Your task to perform on an android device: open app "eBay: The shopping marketplace" Image 0: 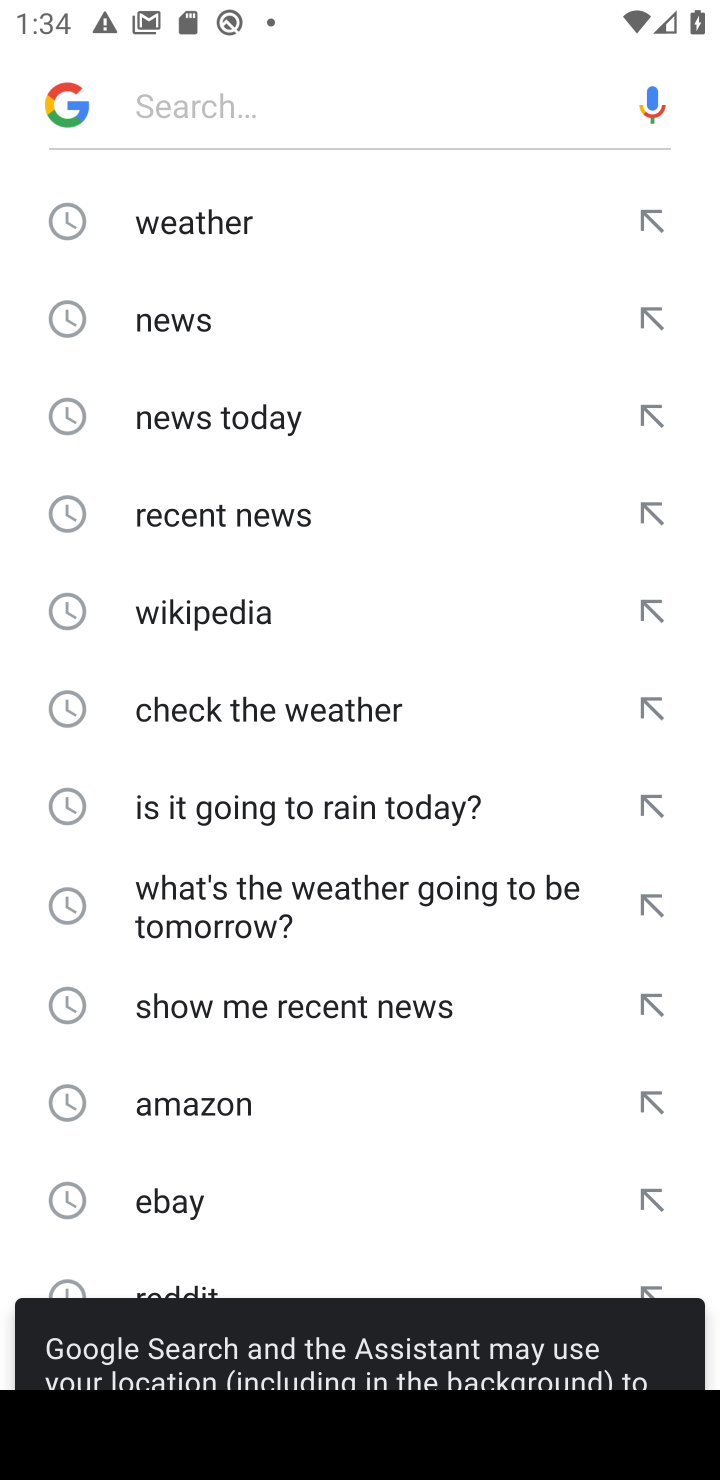
Step 0: press home button
Your task to perform on an android device: open app "eBay: The shopping marketplace" Image 1: 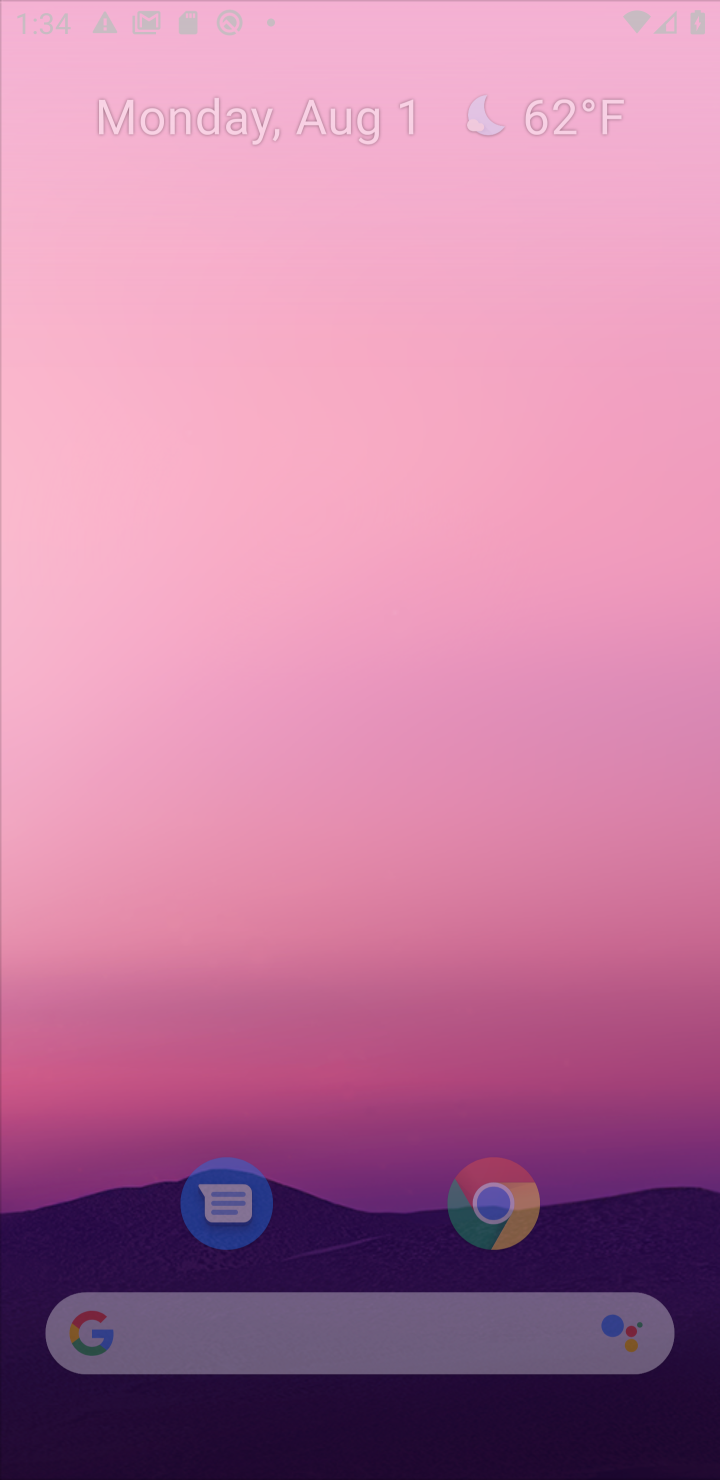
Step 1: press home button
Your task to perform on an android device: open app "eBay: The shopping marketplace" Image 2: 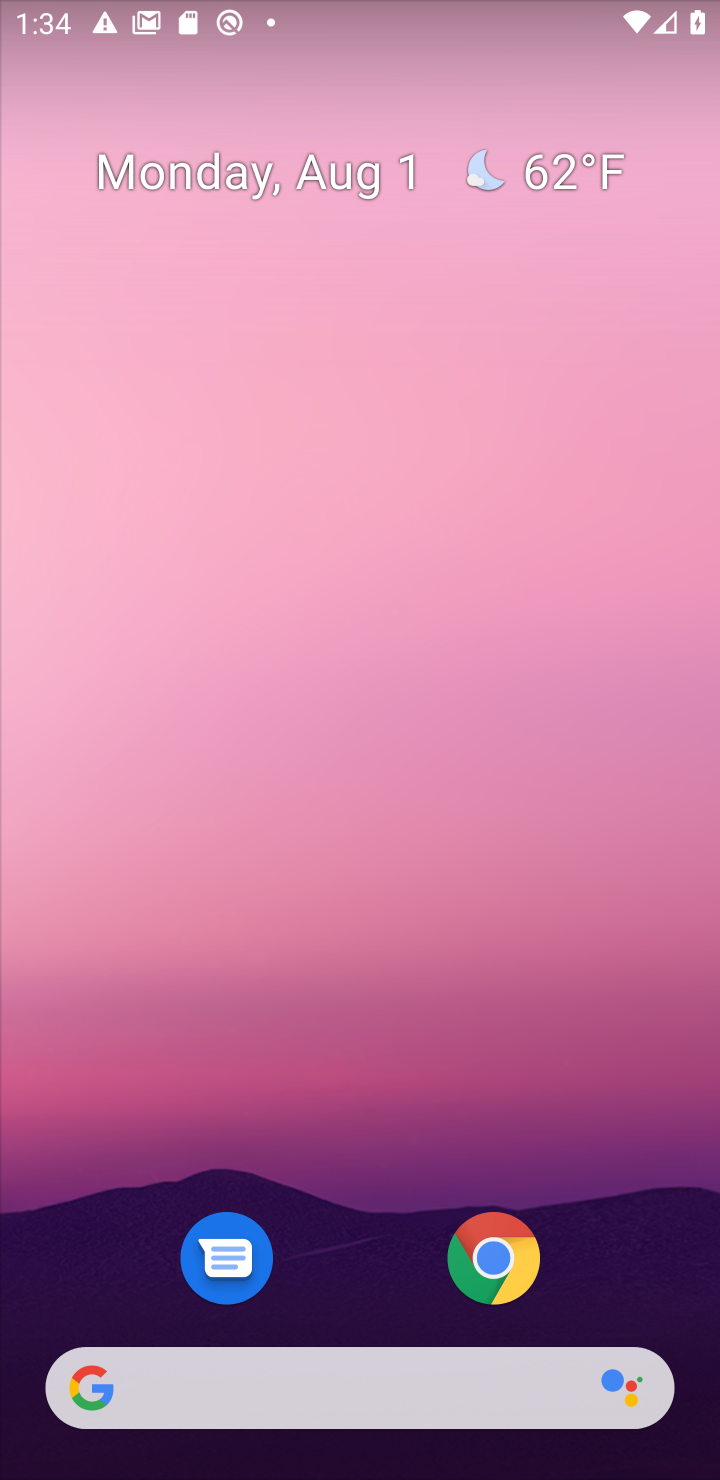
Step 2: drag from (359, 987) to (499, 76)
Your task to perform on an android device: open app "eBay: The shopping marketplace" Image 3: 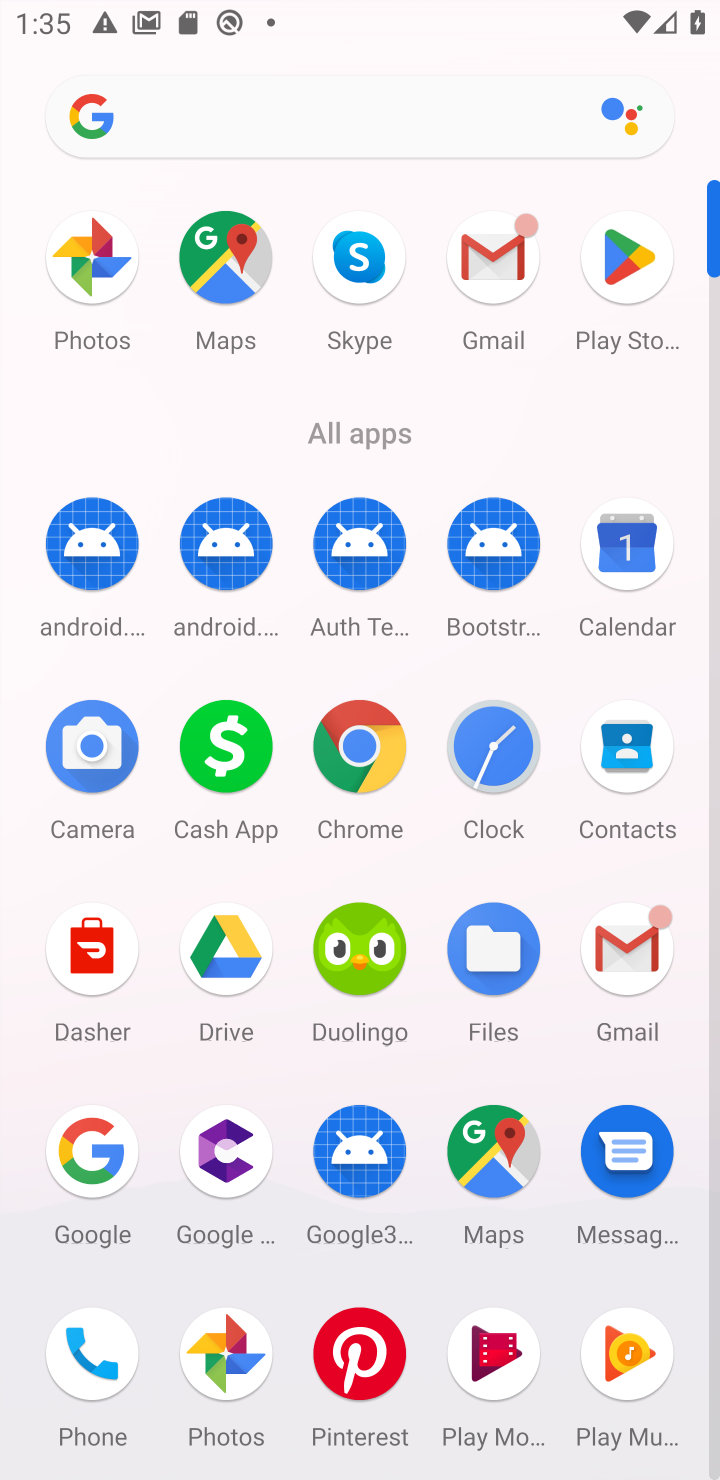
Step 3: click (630, 252)
Your task to perform on an android device: open app "eBay: The shopping marketplace" Image 4: 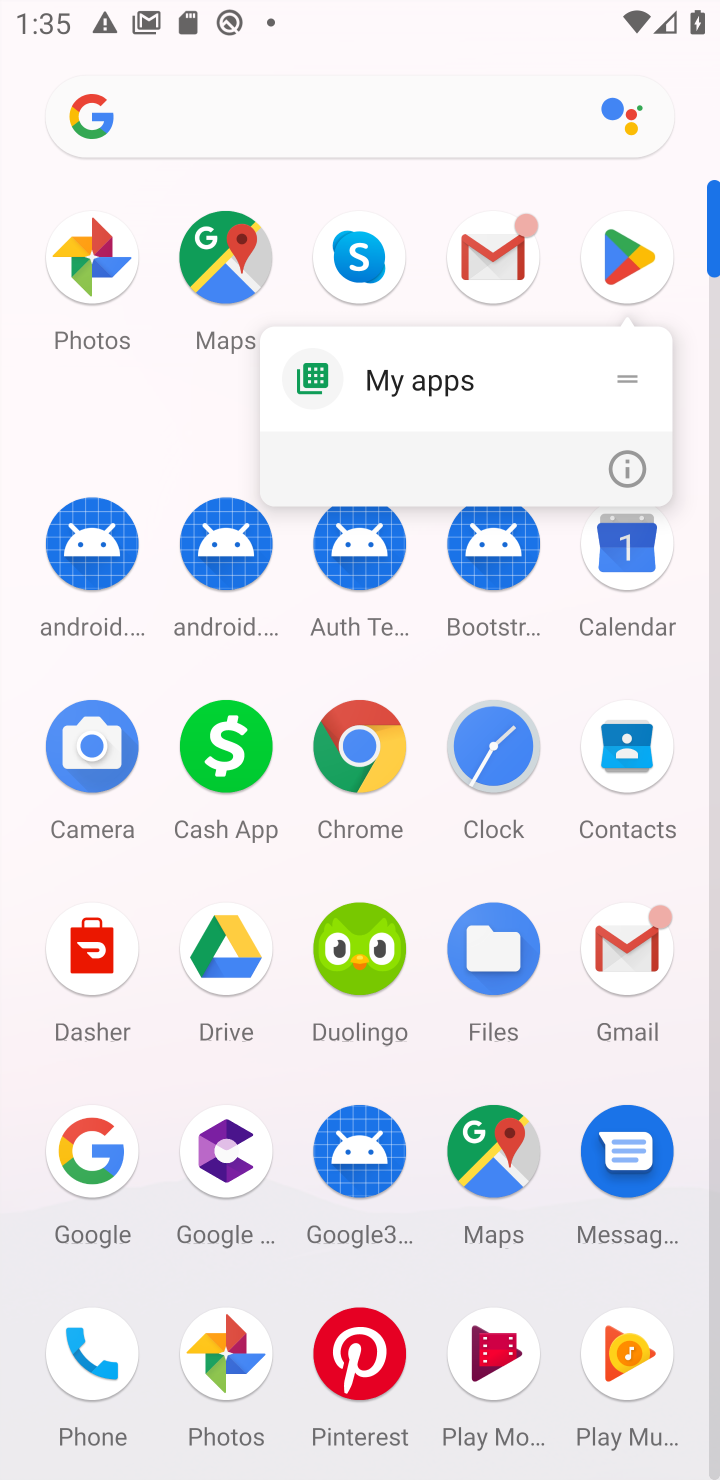
Step 4: click (616, 258)
Your task to perform on an android device: open app "eBay: The shopping marketplace" Image 5: 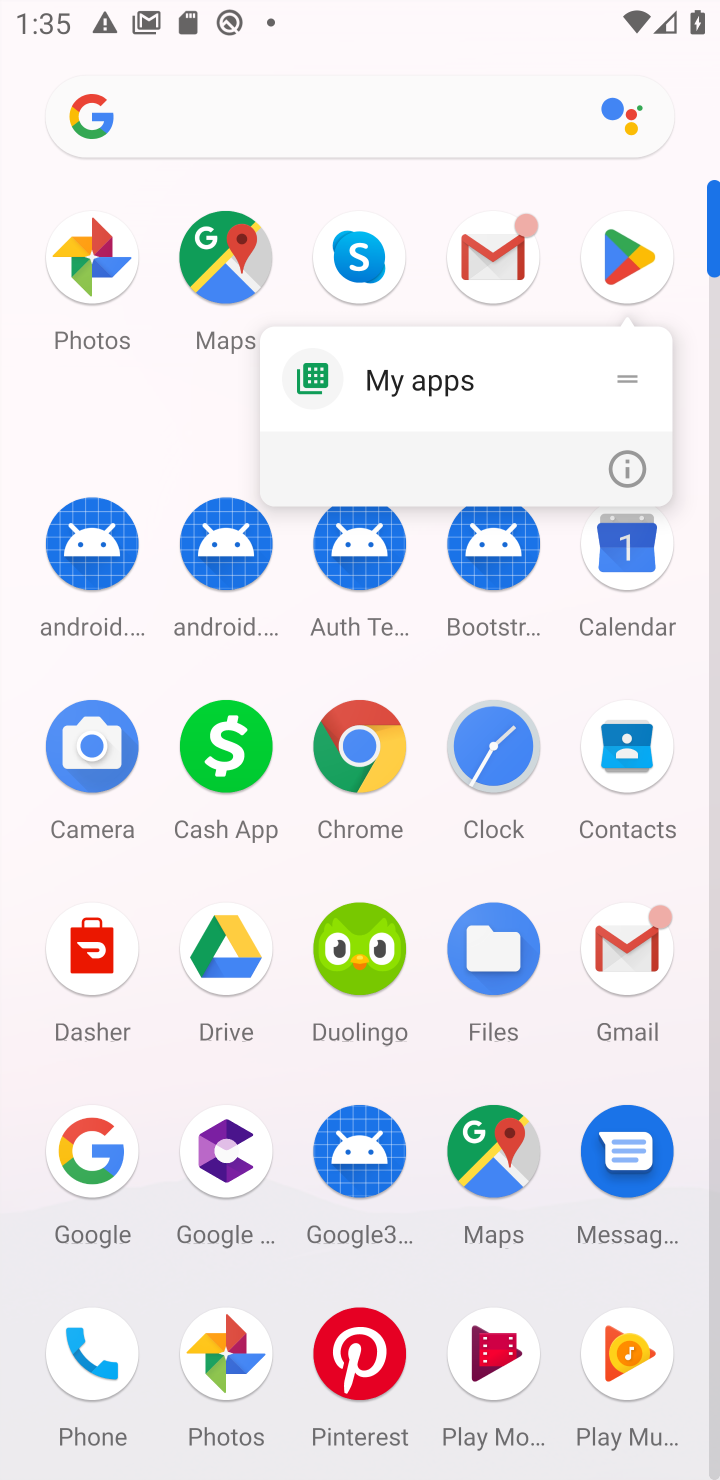
Step 5: click (631, 268)
Your task to perform on an android device: open app "eBay: The shopping marketplace" Image 6: 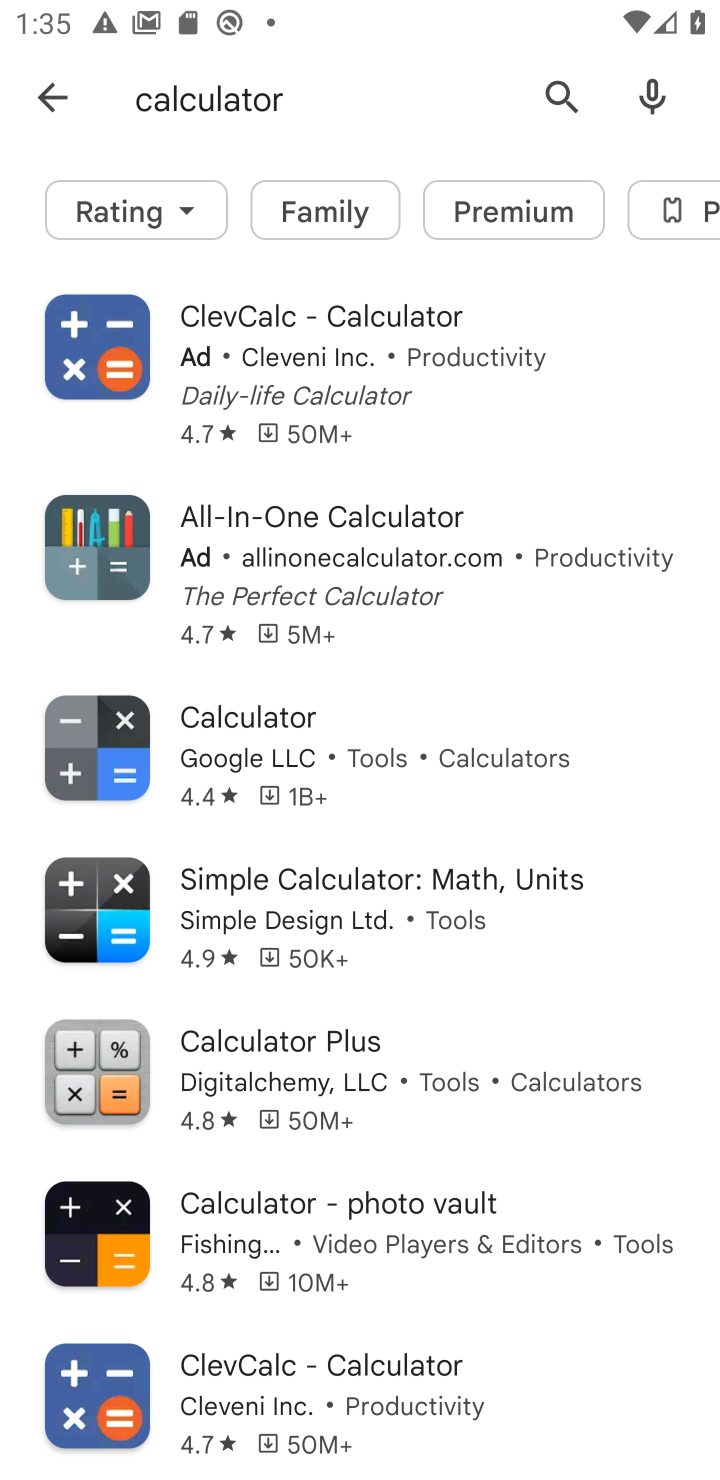
Step 6: click (618, 260)
Your task to perform on an android device: open app "eBay: The shopping marketplace" Image 7: 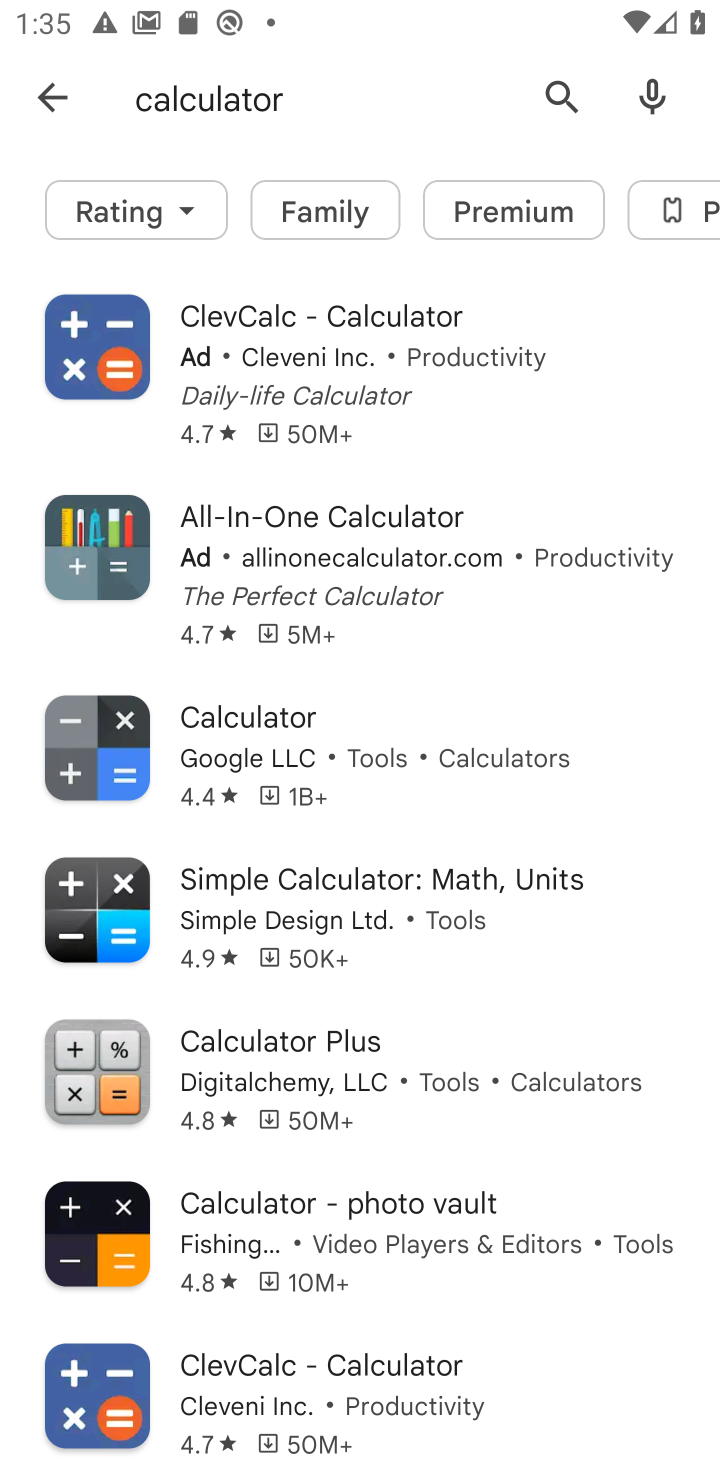
Step 7: click (571, 90)
Your task to perform on an android device: open app "eBay: The shopping marketplace" Image 8: 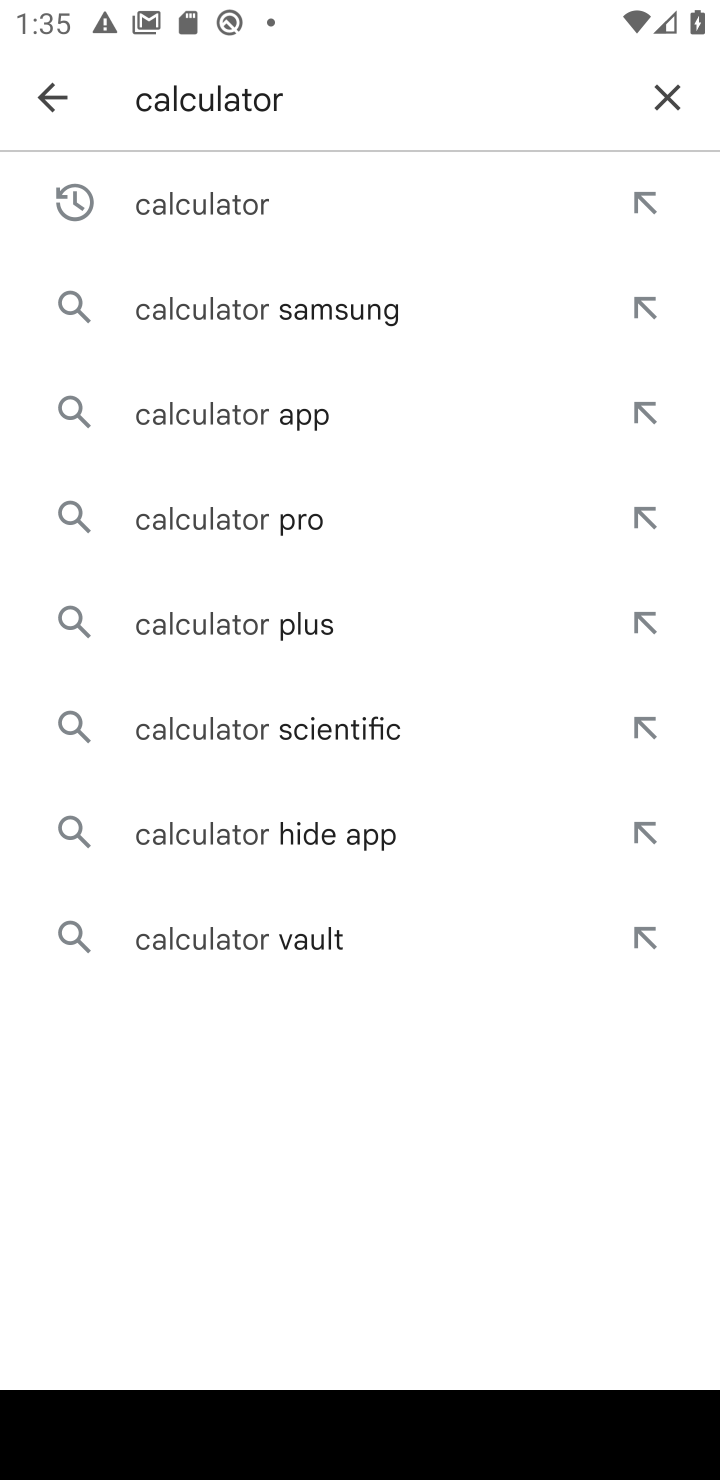
Step 8: click (690, 102)
Your task to perform on an android device: open app "eBay: The shopping marketplace" Image 9: 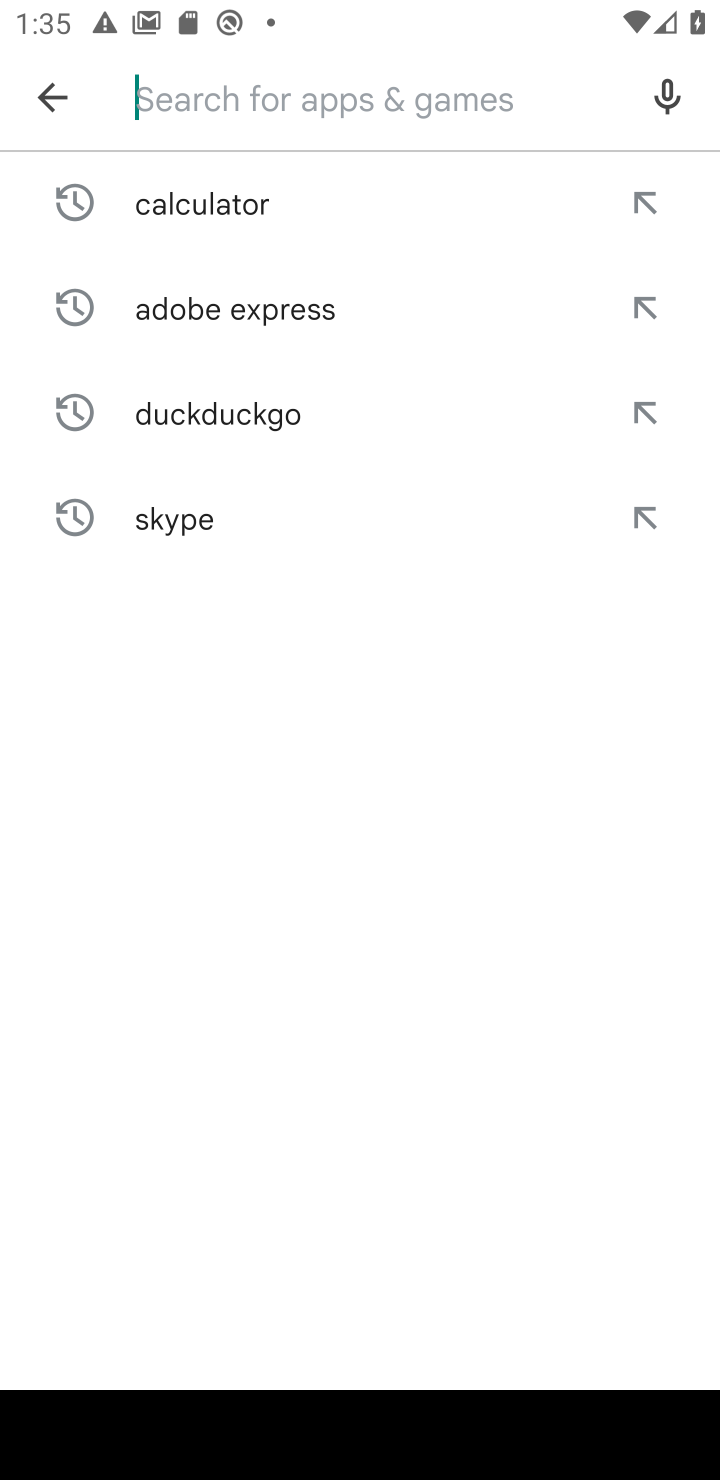
Step 9: click (300, 110)
Your task to perform on an android device: open app "eBay: The shopping marketplace" Image 10: 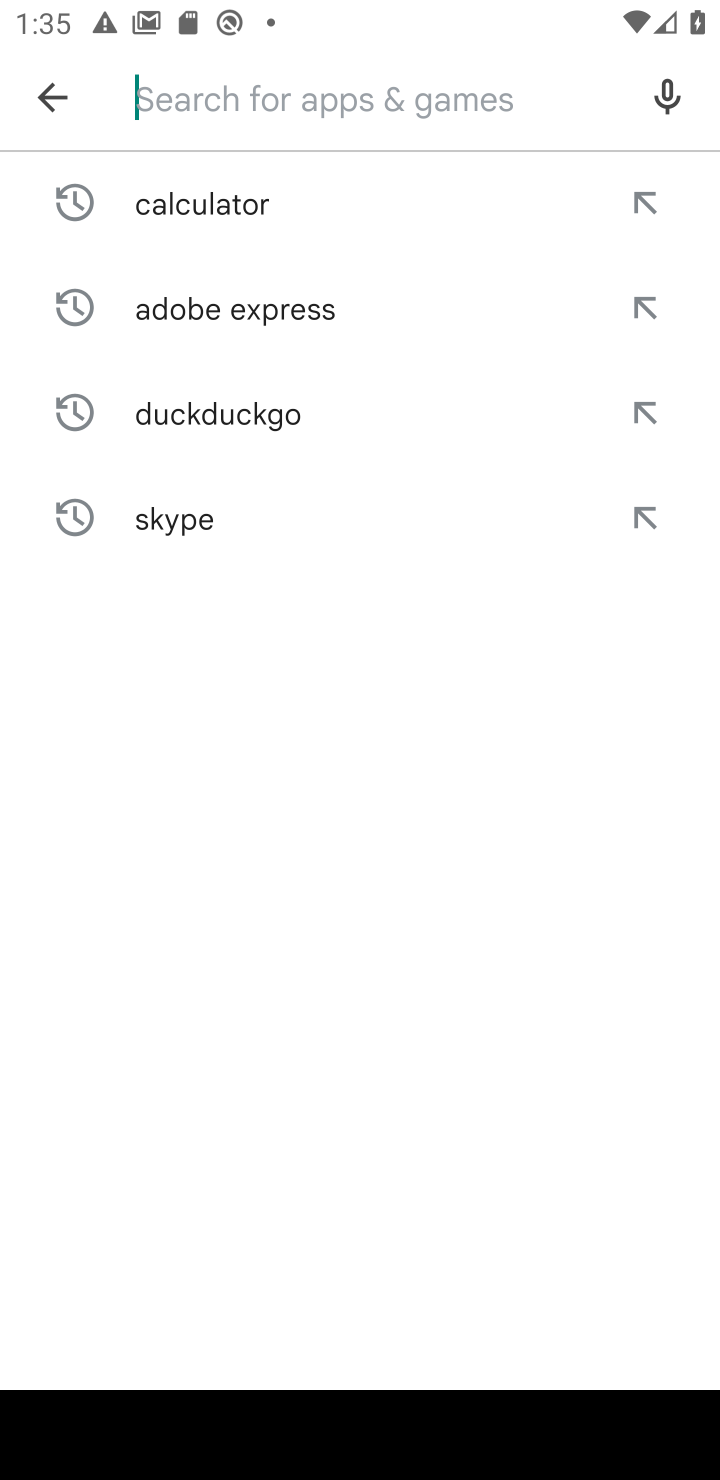
Step 10: type "ebay"
Your task to perform on an android device: open app "eBay: The shopping marketplace" Image 11: 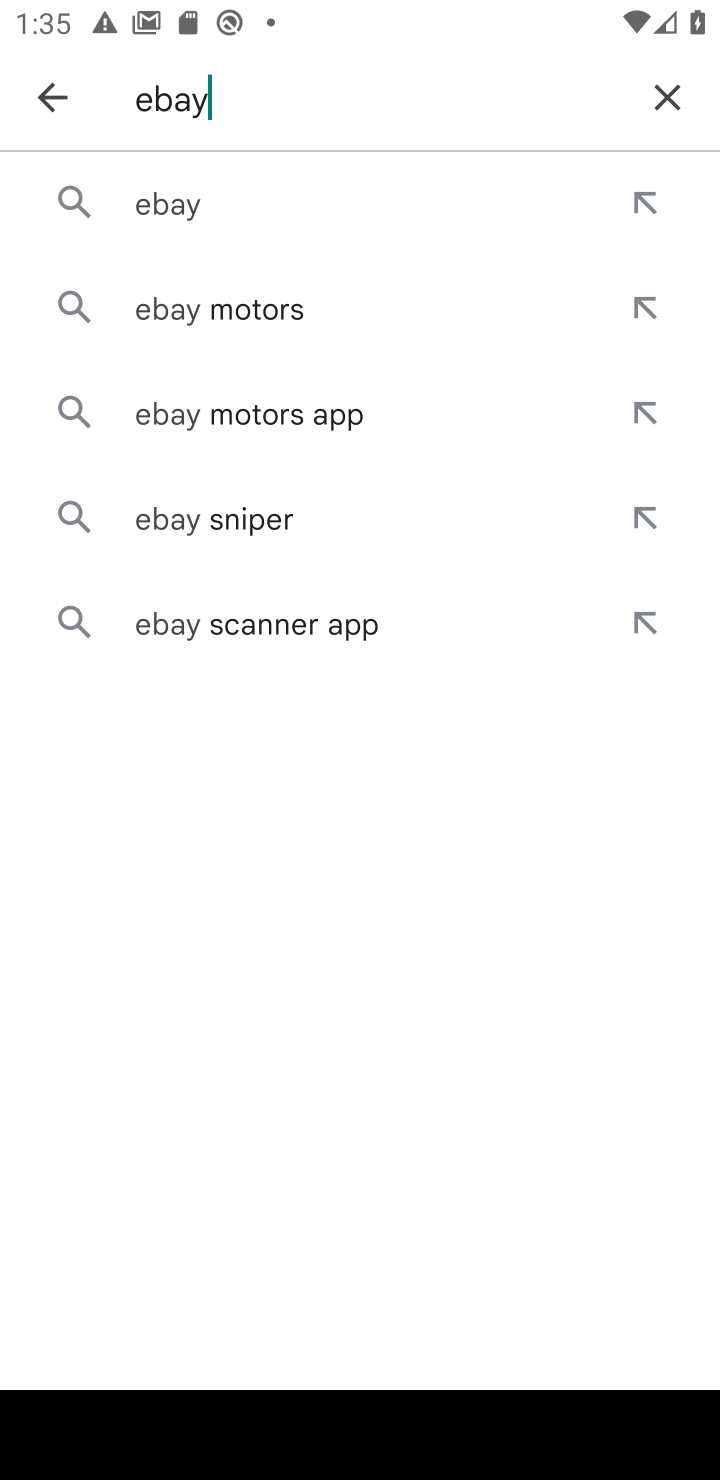
Step 11: click (225, 188)
Your task to perform on an android device: open app "eBay: The shopping marketplace" Image 12: 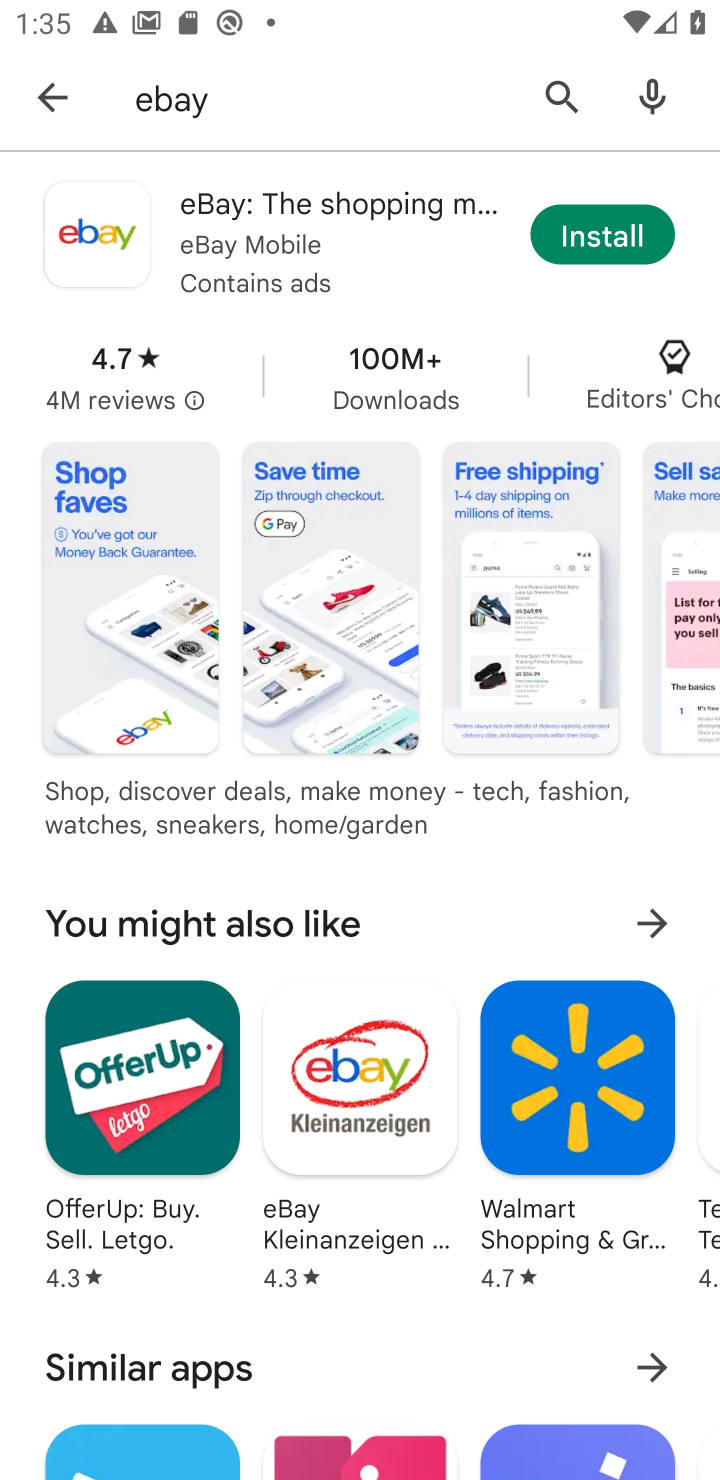
Step 12: task complete